Your task to perform on an android device: remove spam from my inbox in the gmail app Image 0: 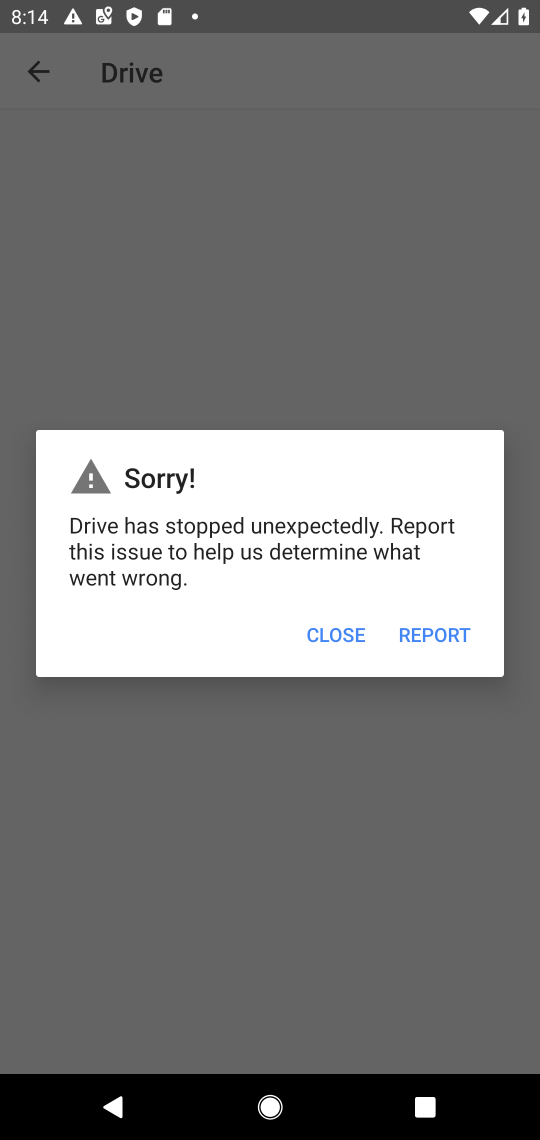
Step 0: press home button
Your task to perform on an android device: remove spam from my inbox in the gmail app Image 1: 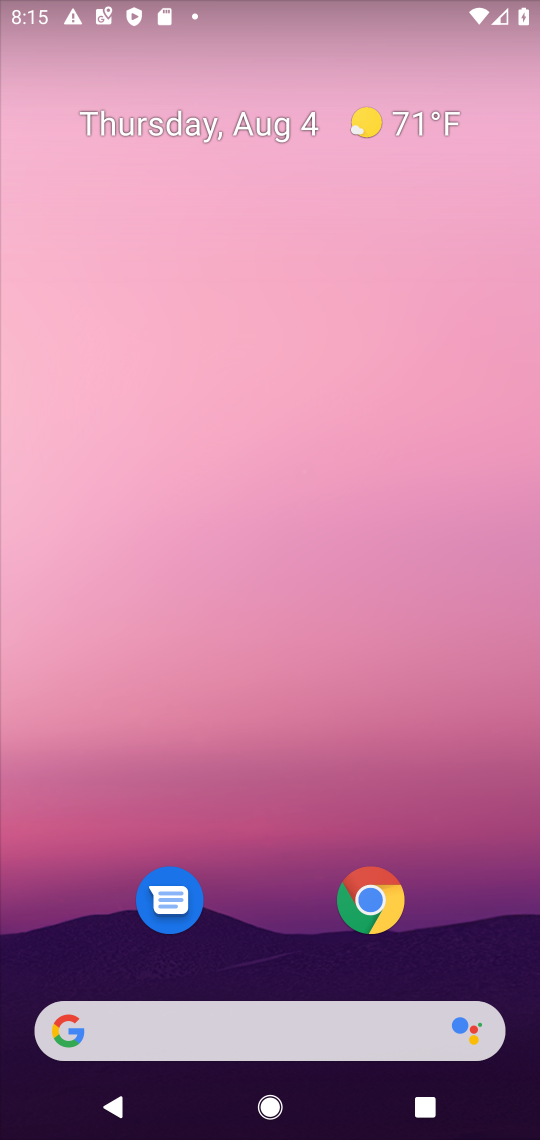
Step 1: drag from (238, 235) to (263, 132)
Your task to perform on an android device: remove spam from my inbox in the gmail app Image 2: 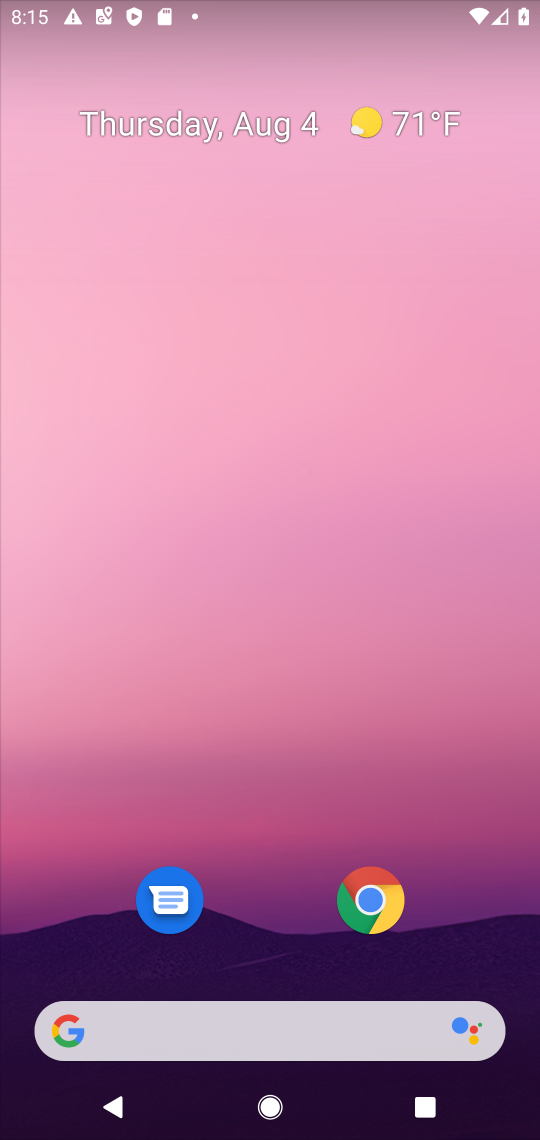
Step 2: drag from (283, 6) to (283, 67)
Your task to perform on an android device: remove spam from my inbox in the gmail app Image 3: 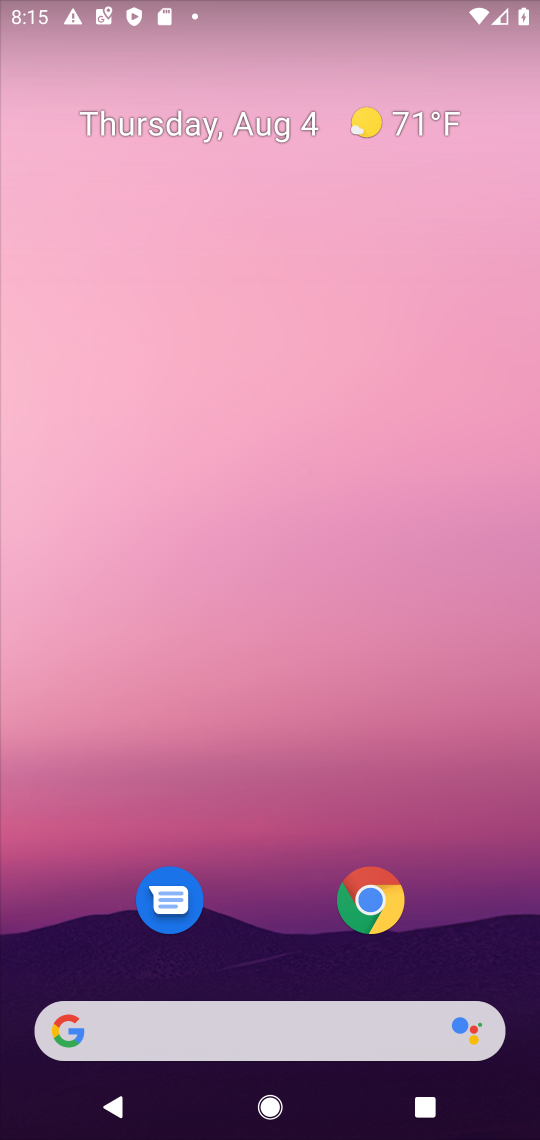
Step 3: drag from (274, 944) to (236, 5)
Your task to perform on an android device: remove spam from my inbox in the gmail app Image 4: 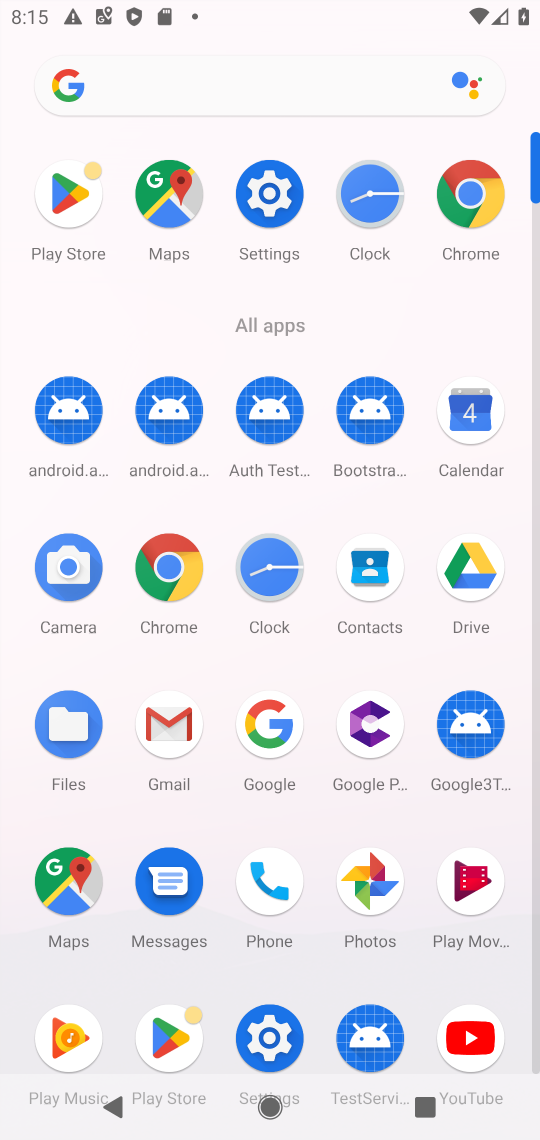
Step 4: click (166, 748)
Your task to perform on an android device: remove spam from my inbox in the gmail app Image 5: 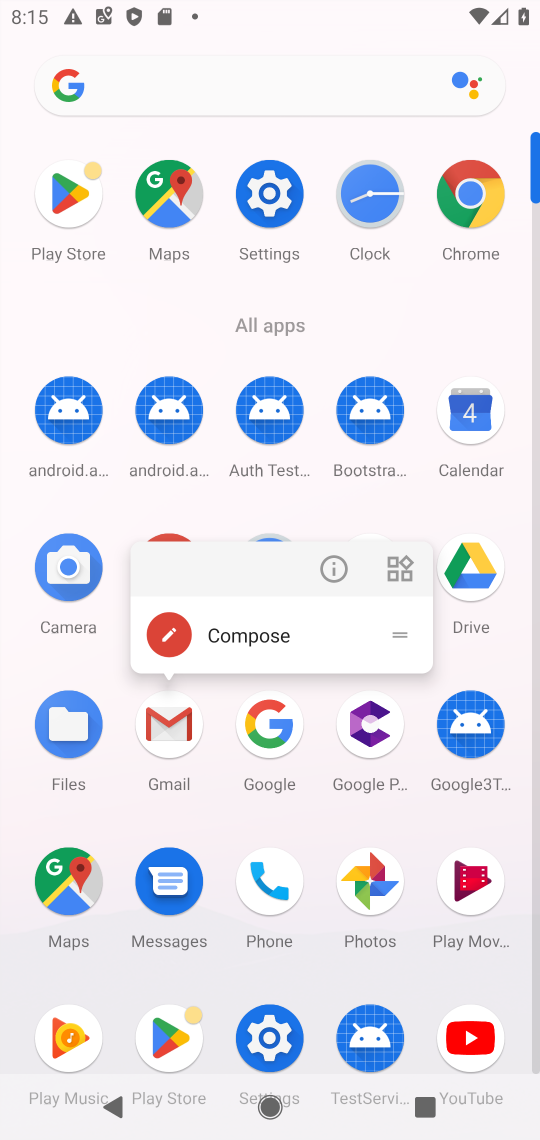
Step 5: click (165, 778)
Your task to perform on an android device: remove spam from my inbox in the gmail app Image 6: 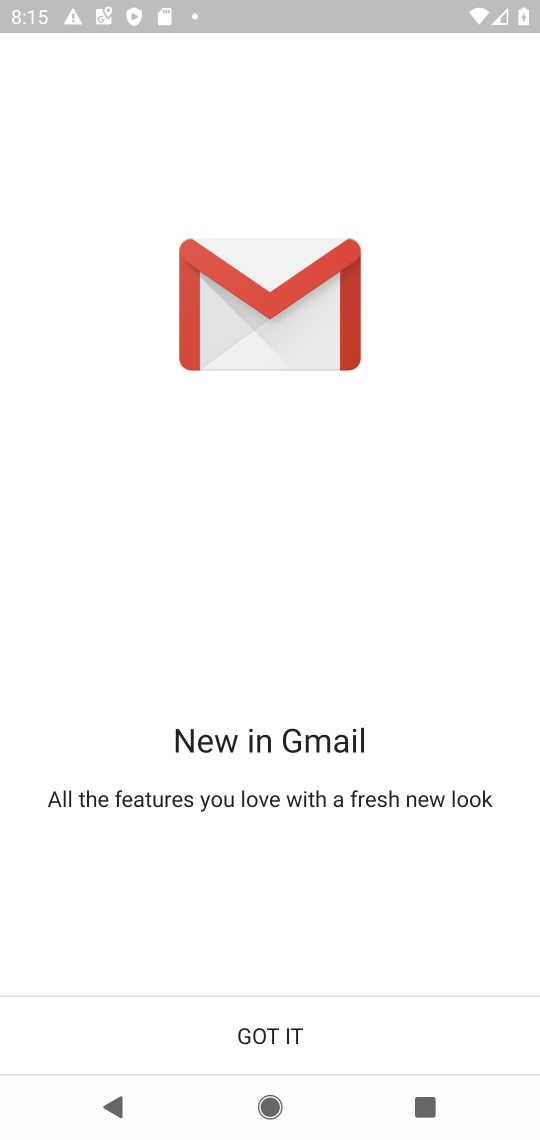
Step 6: click (269, 1030)
Your task to perform on an android device: remove spam from my inbox in the gmail app Image 7: 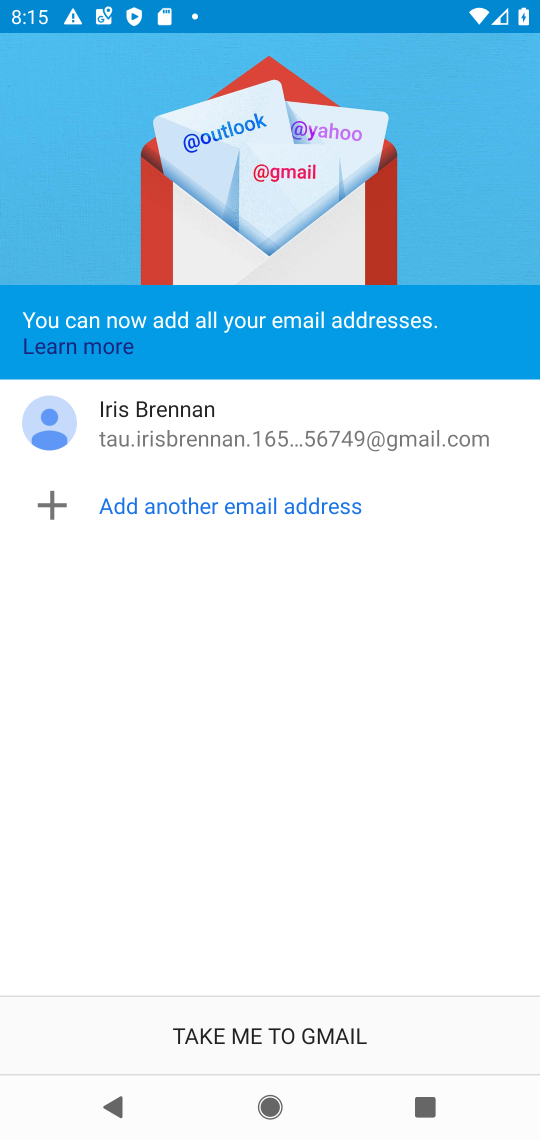
Step 7: click (269, 1030)
Your task to perform on an android device: remove spam from my inbox in the gmail app Image 8: 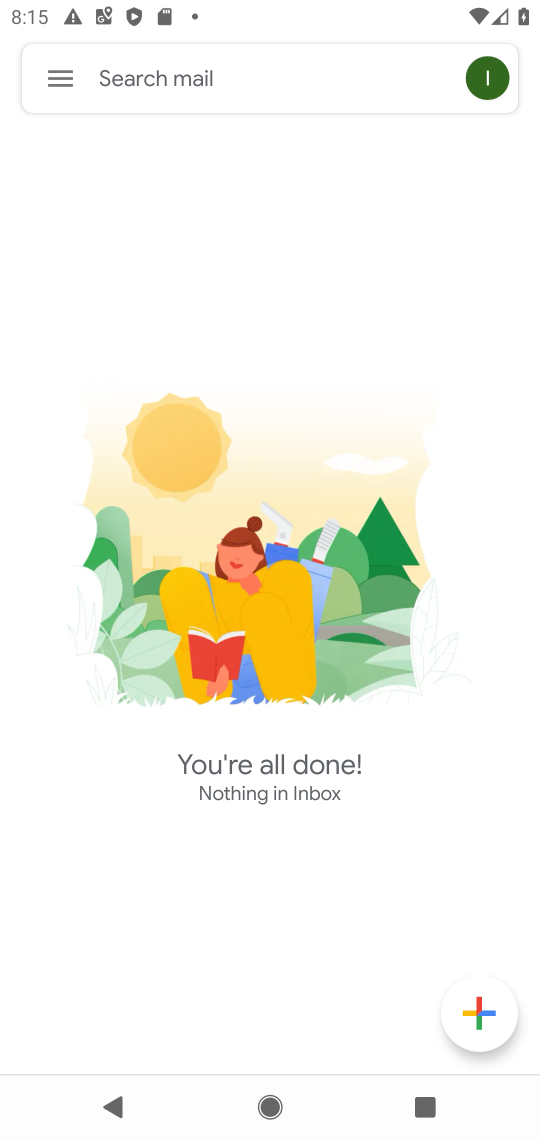
Step 8: click (57, 78)
Your task to perform on an android device: remove spam from my inbox in the gmail app Image 9: 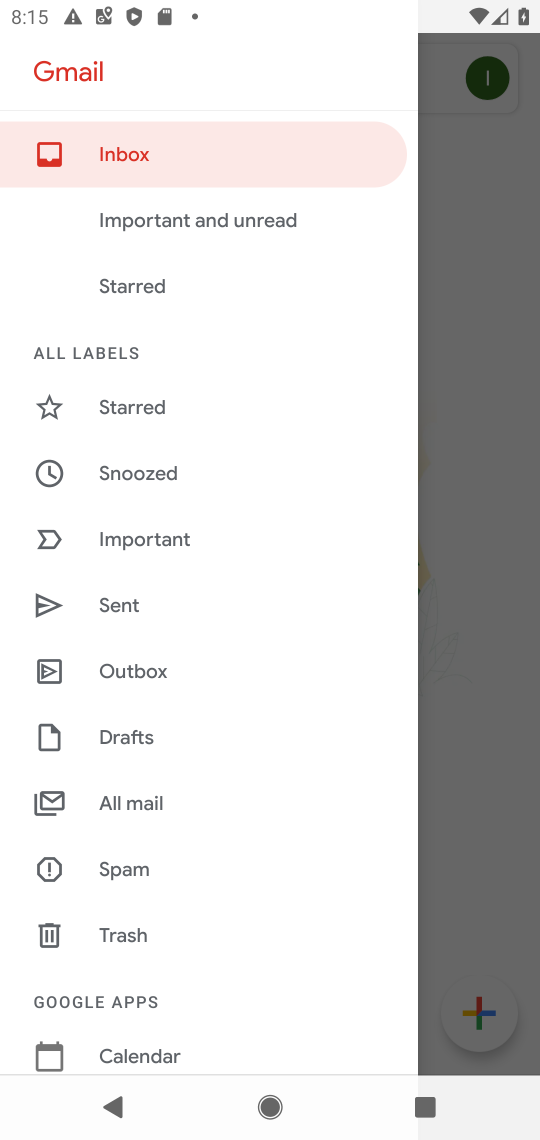
Step 9: click (132, 868)
Your task to perform on an android device: remove spam from my inbox in the gmail app Image 10: 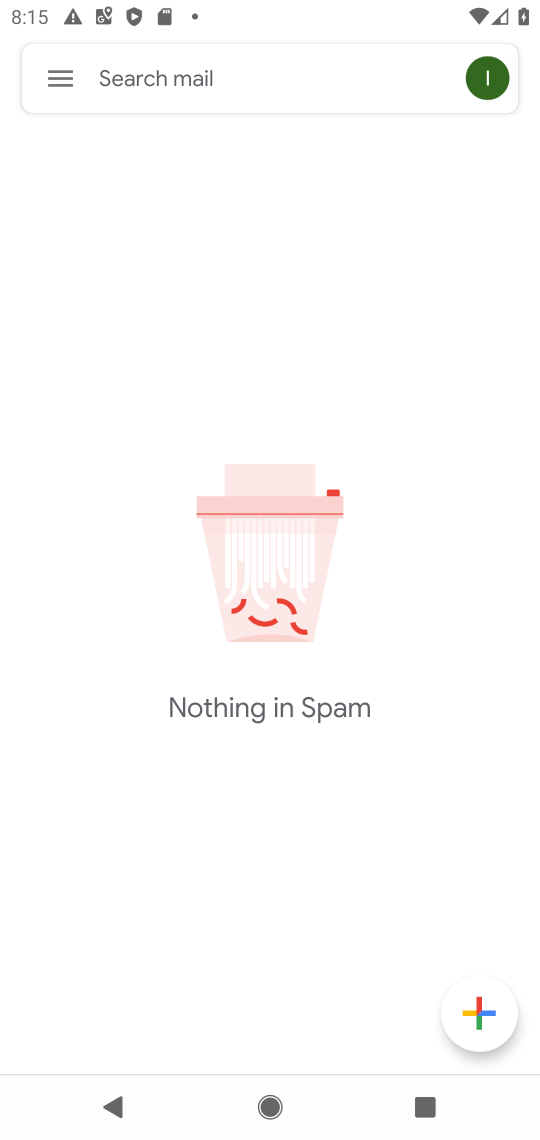
Step 10: task complete